Your task to perform on an android device: open app "Google Calendar" Image 0: 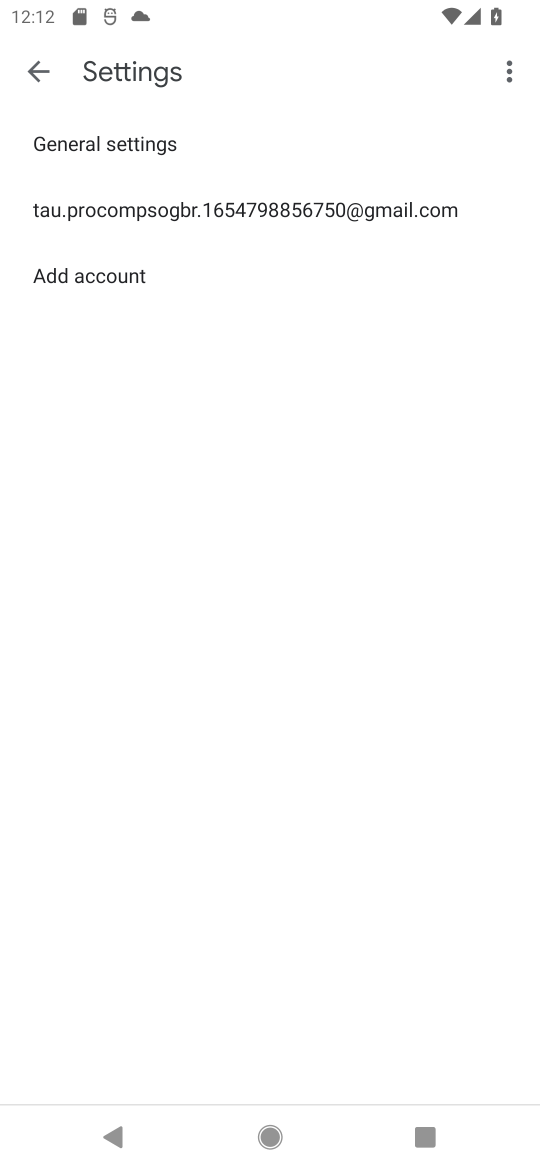
Step 0: press home button
Your task to perform on an android device: open app "Google Calendar" Image 1: 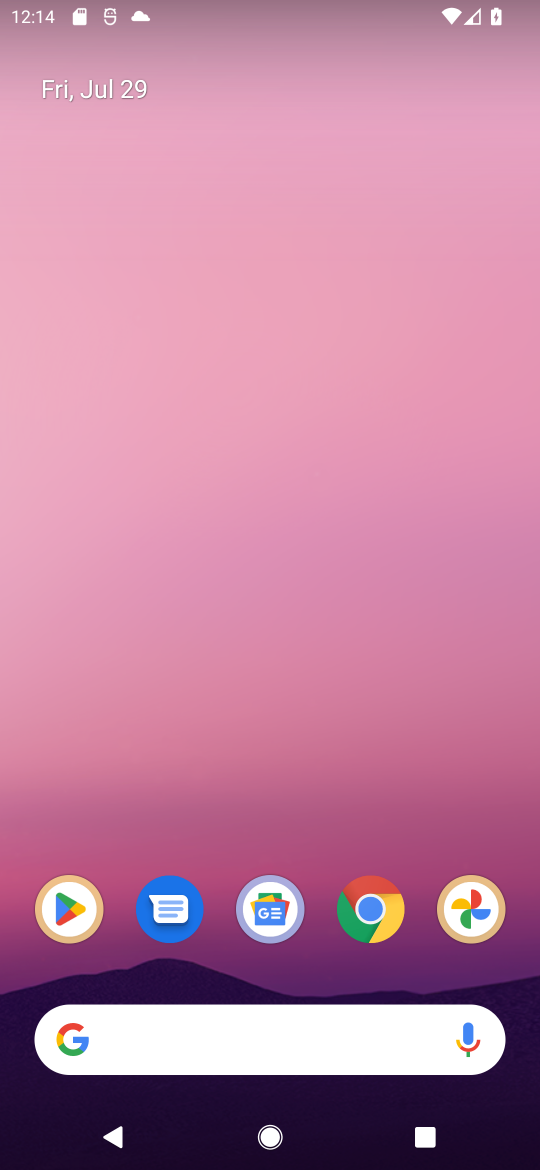
Step 1: click (68, 909)
Your task to perform on an android device: open app "Google Calendar" Image 2: 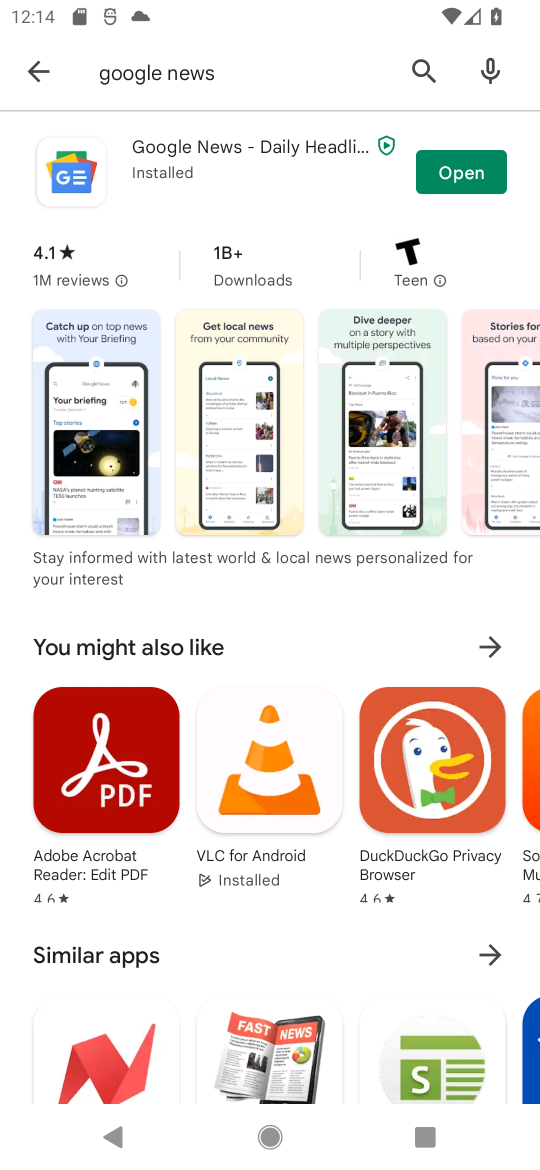
Step 2: click (423, 74)
Your task to perform on an android device: open app "Google Calendar" Image 3: 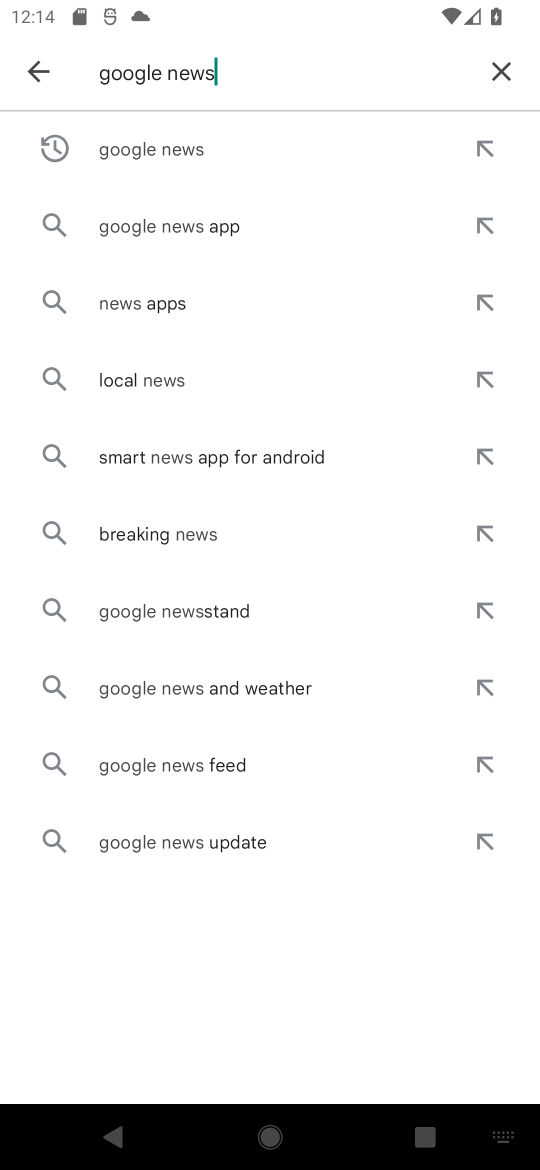
Step 3: click (497, 66)
Your task to perform on an android device: open app "Google Calendar" Image 4: 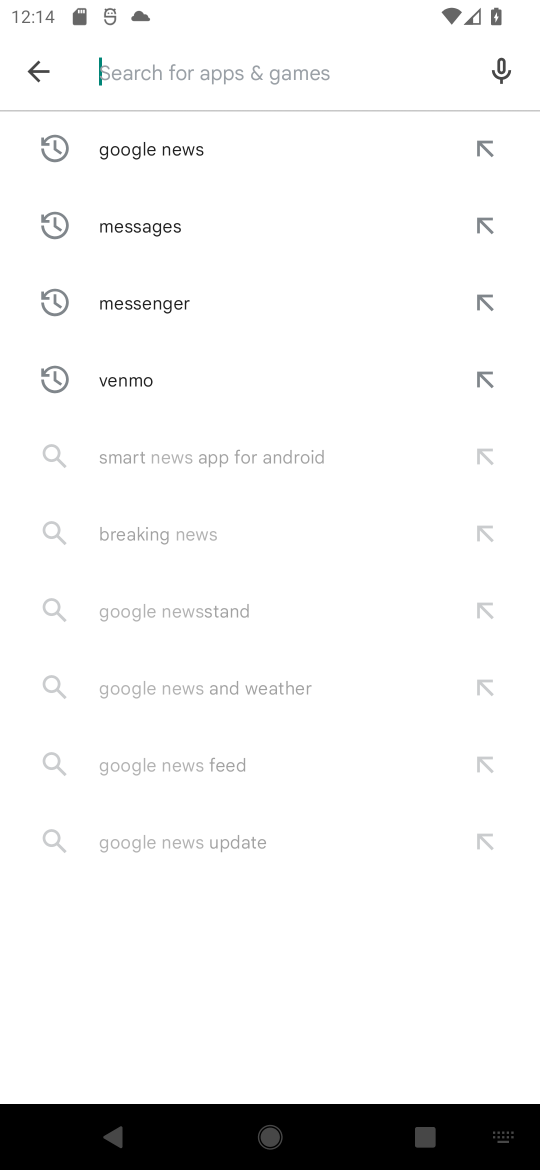
Step 4: click (497, 66)
Your task to perform on an android device: open app "Google Calendar" Image 5: 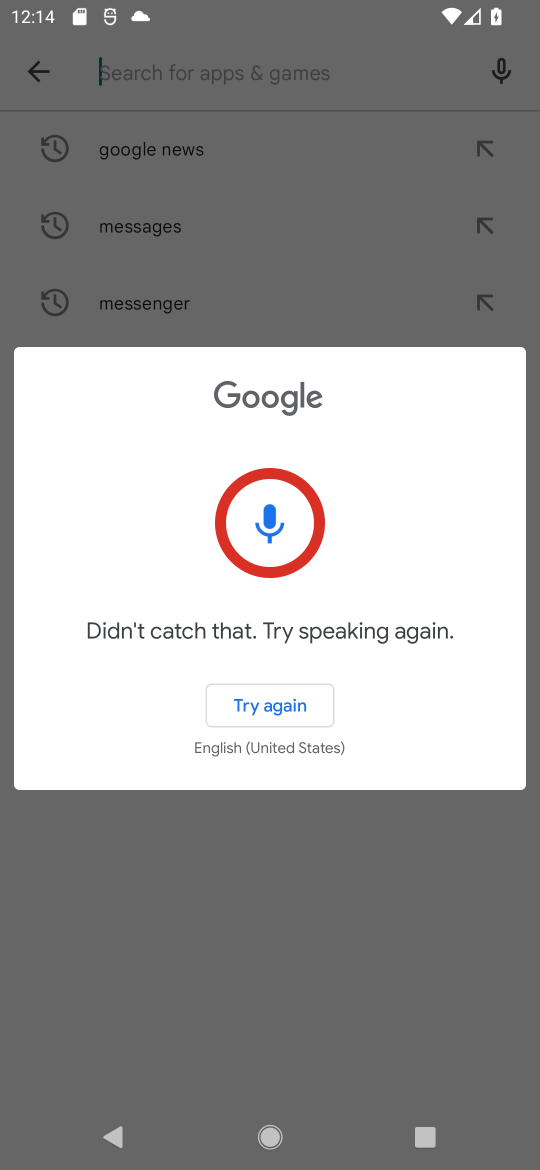
Step 5: click (296, 45)
Your task to perform on an android device: open app "Google Calendar" Image 6: 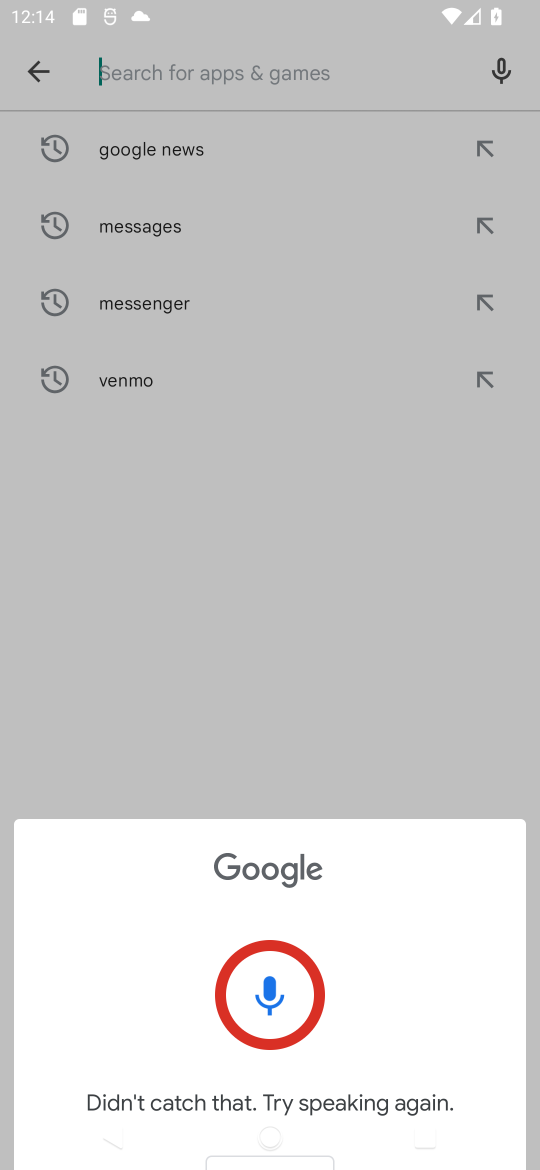
Step 6: click (296, 45)
Your task to perform on an android device: open app "Google Calendar" Image 7: 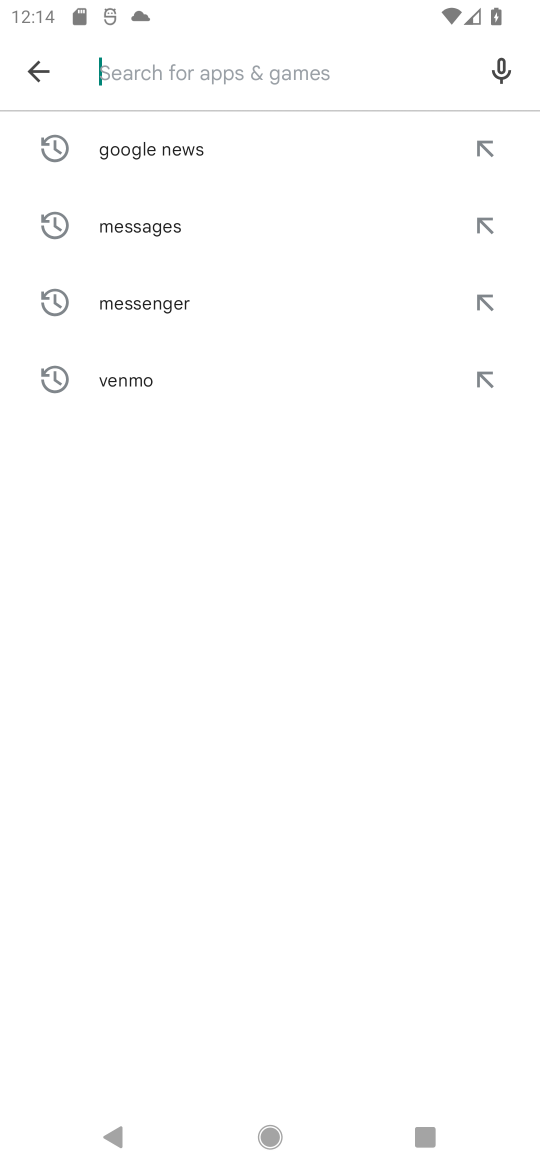
Step 7: click (296, 45)
Your task to perform on an android device: open app "Google Calendar" Image 8: 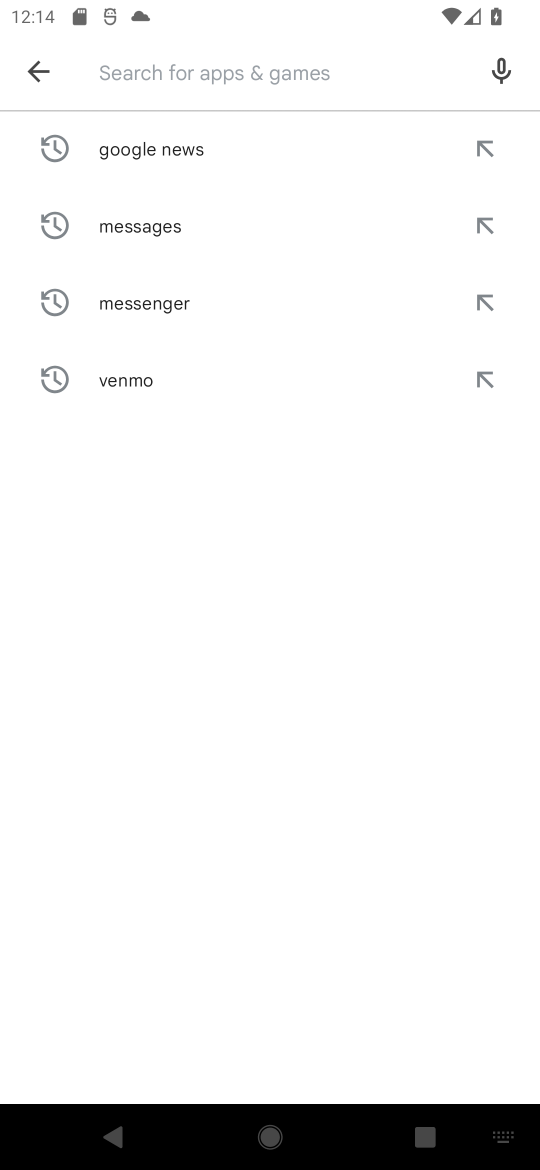
Step 8: click (296, 45)
Your task to perform on an android device: open app "Google Calendar" Image 9: 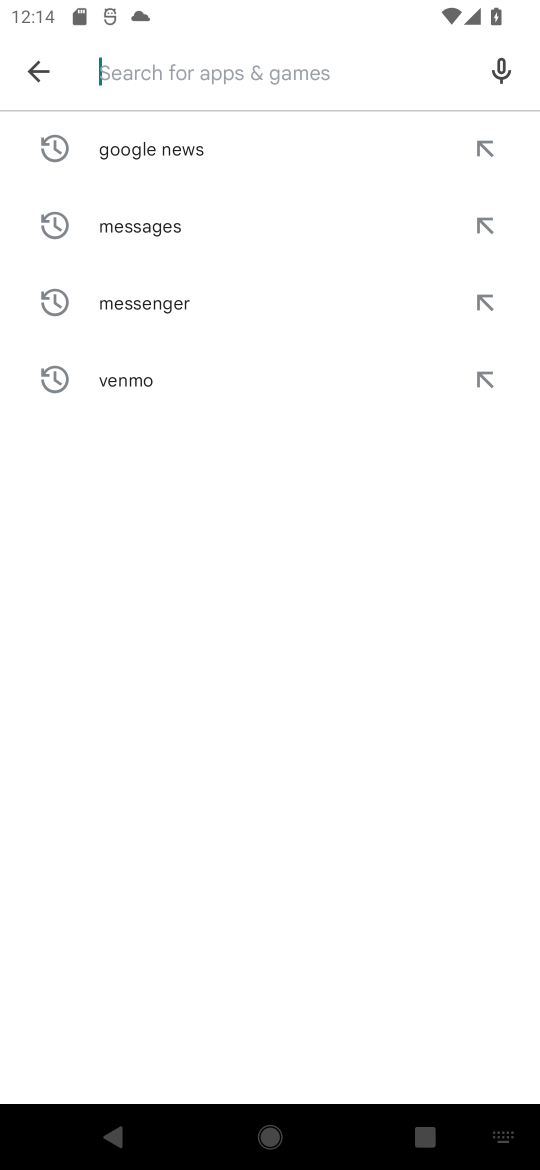
Step 9: type "Google Calendar""
Your task to perform on an android device: open app "Google Calendar" Image 10: 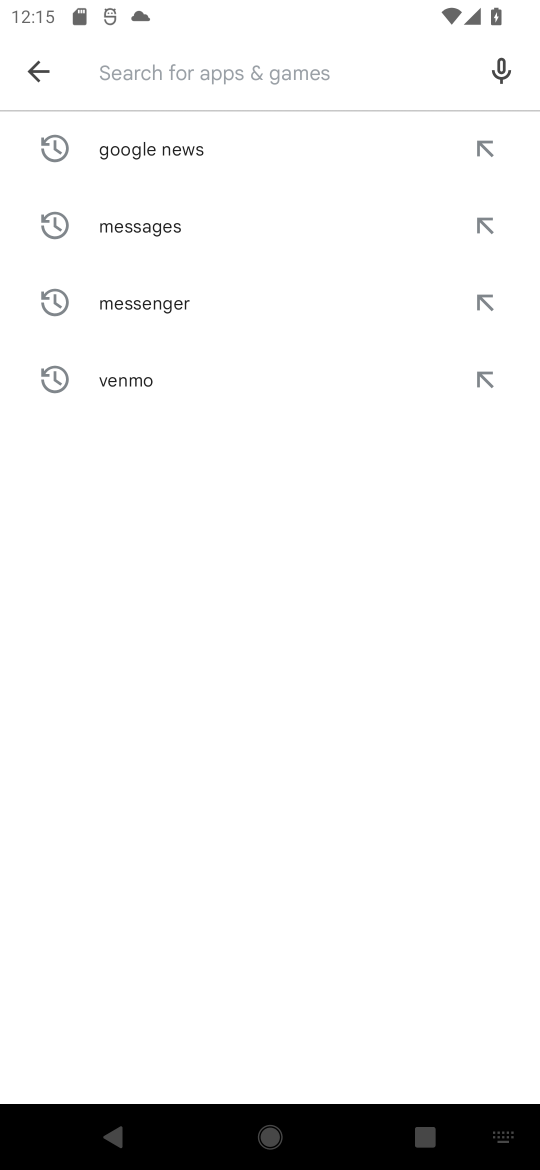
Step 10: type ""
Your task to perform on an android device: open app "Google Calendar" Image 11: 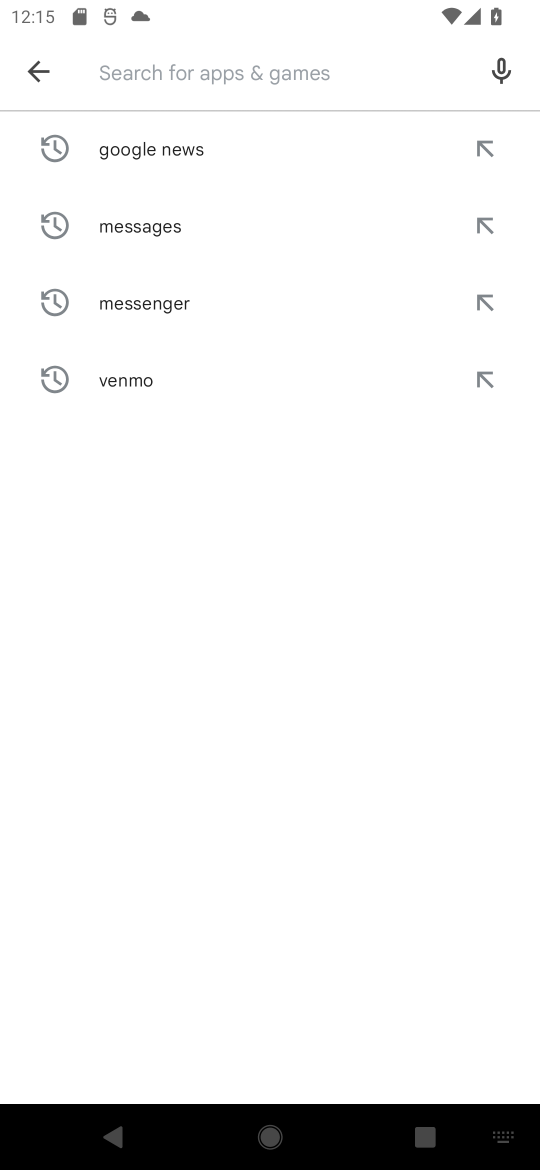
Step 11: type ""
Your task to perform on an android device: open app "Google Calendar" Image 12: 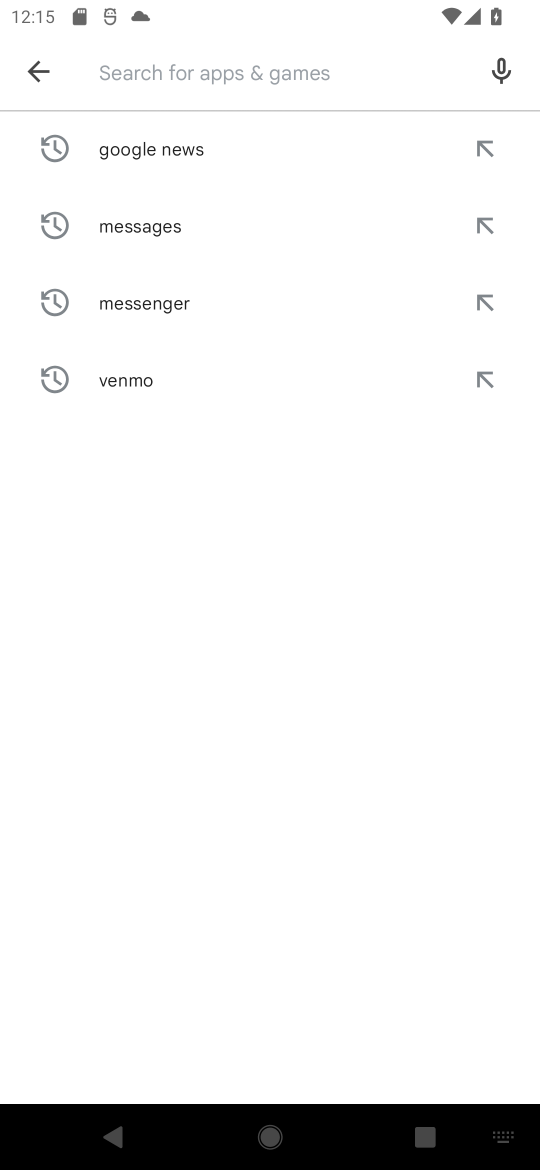
Step 12: type ""
Your task to perform on an android device: open app "Google Calendar" Image 13: 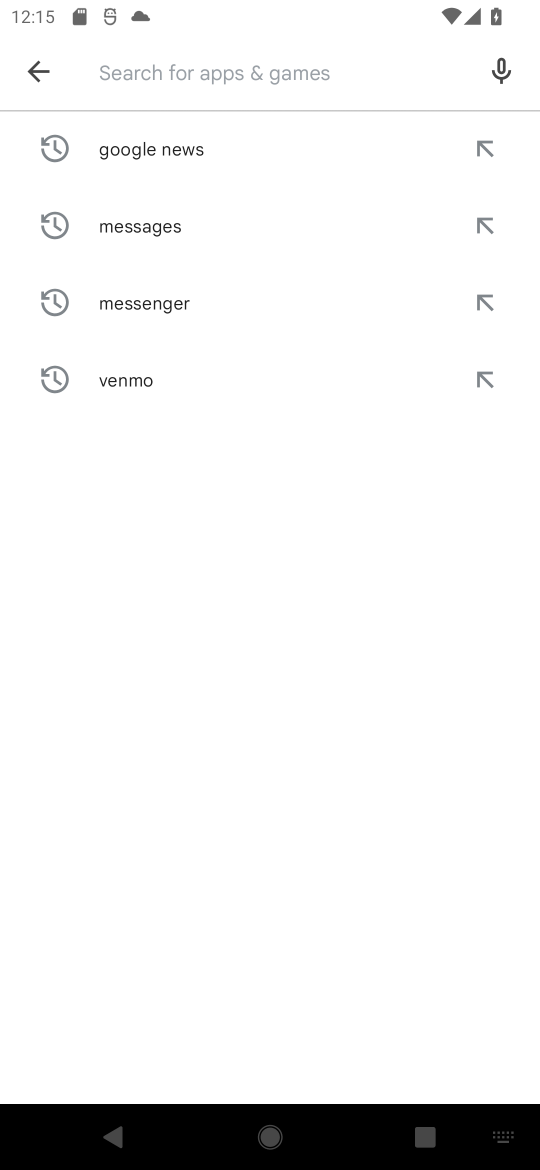
Step 13: type ""
Your task to perform on an android device: open app "Google Calendar" Image 14: 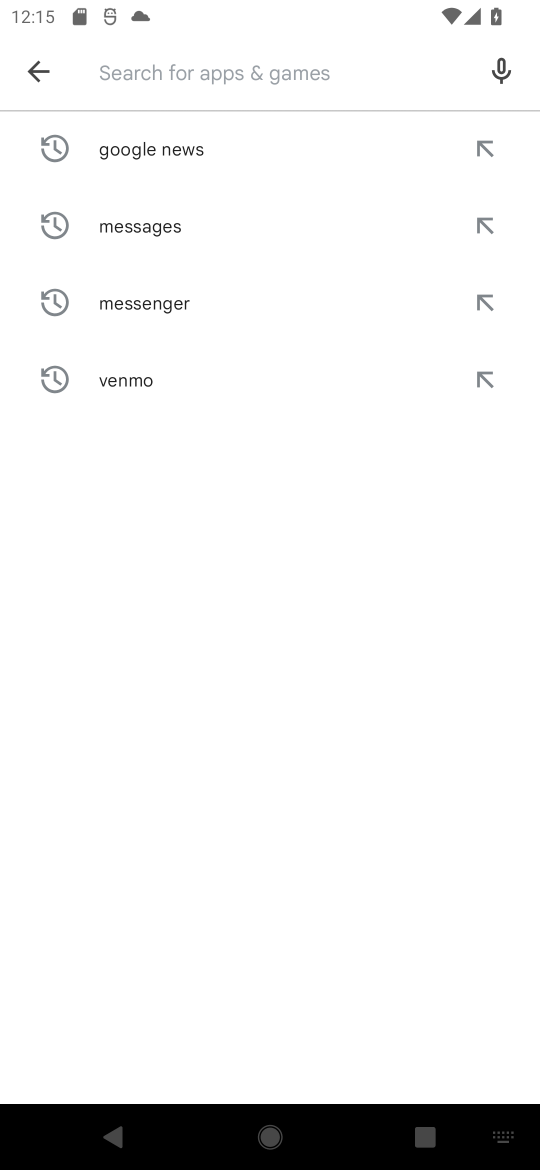
Step 14: press home button
Your task to perform on an android device: open app "Google Calendar" Image 15: 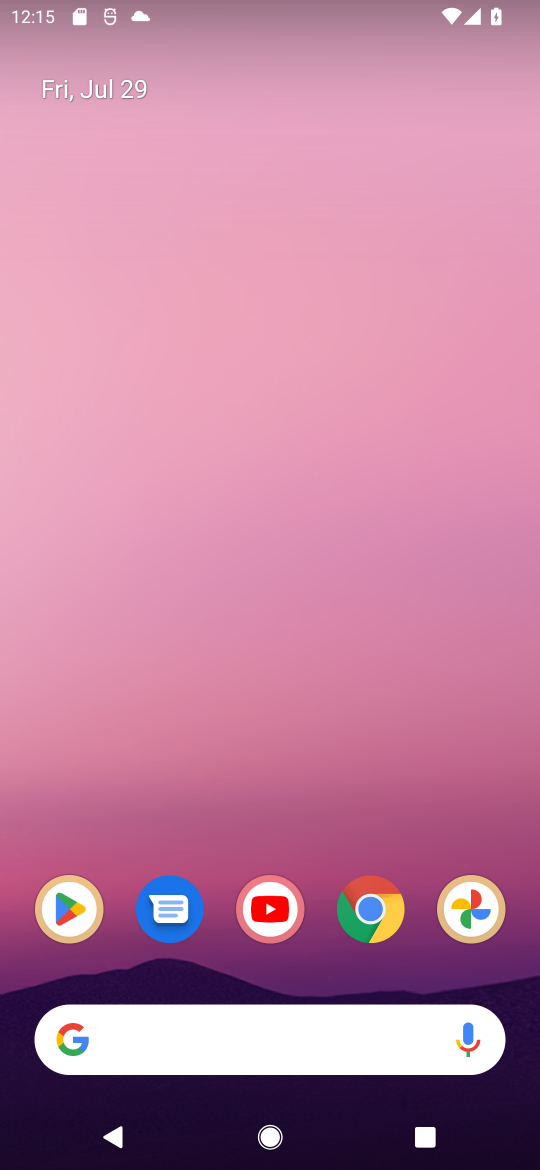
Step 15: click (57, 901)
Your task to perform on an android device: open app "Google Calendar" Image 16: 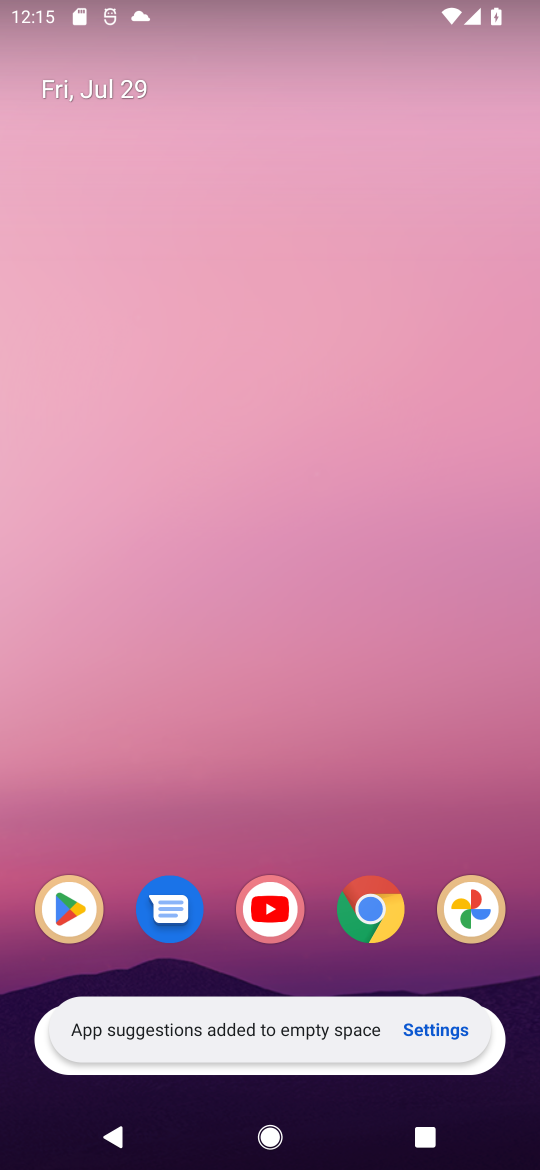
Step 16: click (57, 901)
Your task to perform on an android device: open app "Google Calendar" Image 17: 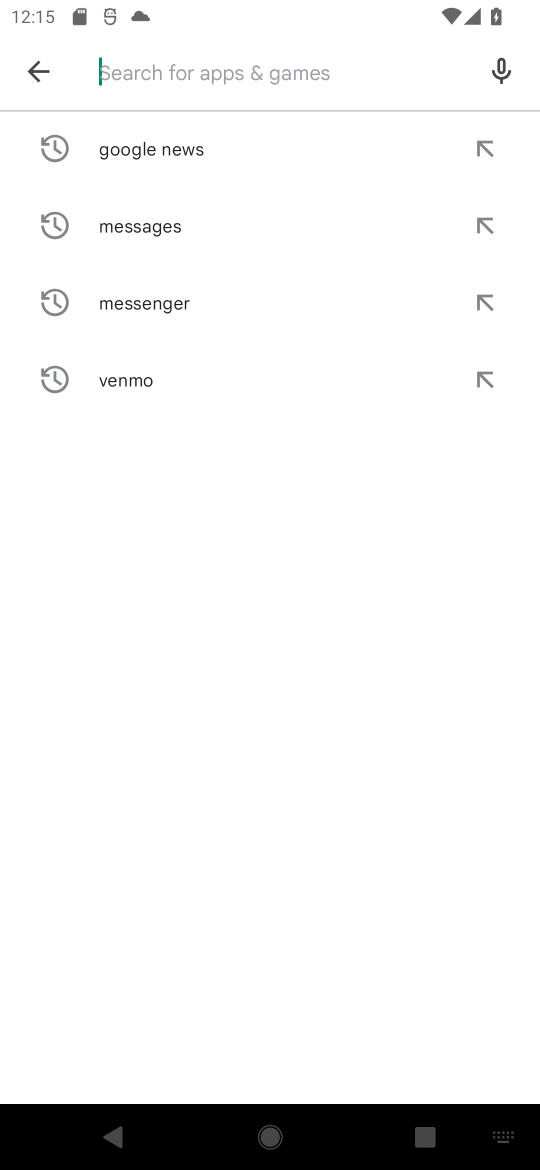
Step 17: type "Google Calendar"
Your task to perform on an android device: open app "Google Calendar" Image 18: 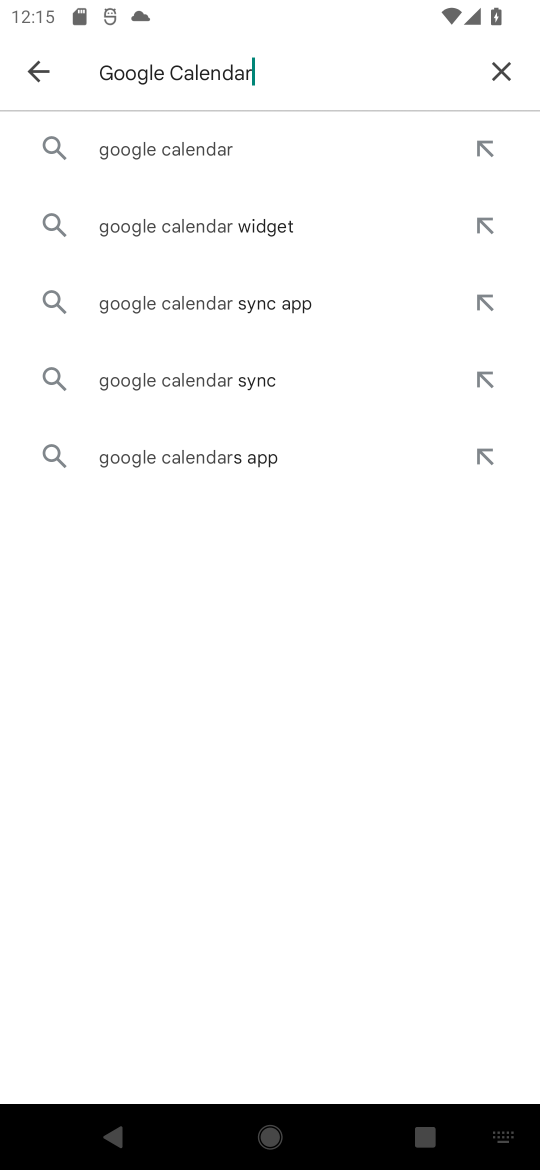
Step 18: type ""
Your task to perform on an android device: open app "Google Calendar" Image 19: 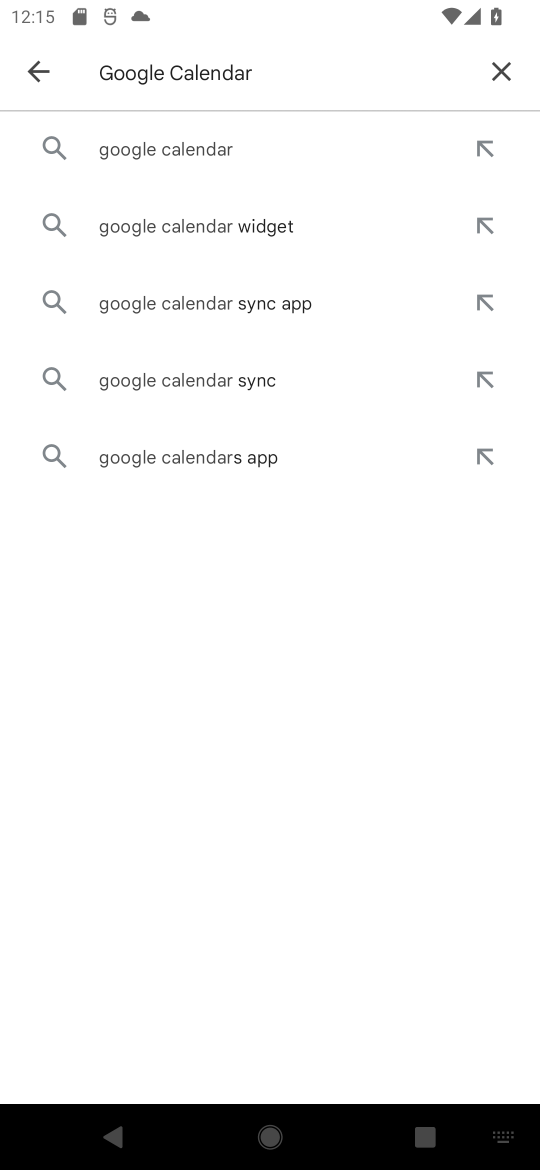
Step 19: click (210, 148)
Your task to perform on an android device: open app "Google Calendar" Image 20: 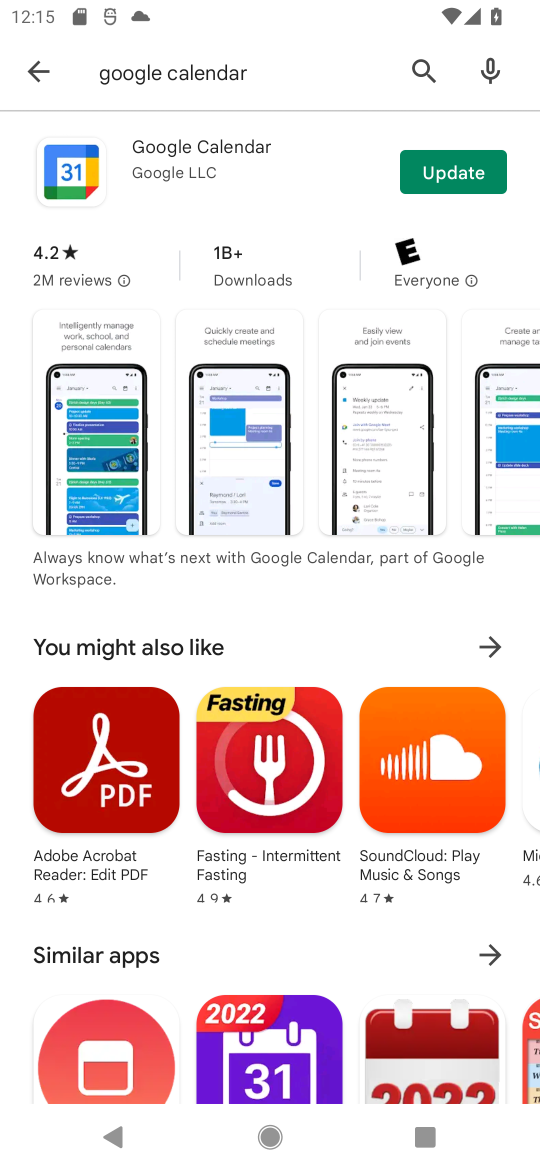
Step 20: click (183, 146)
Your task to perform on an android device: open app "Google Calendar" Image 21: 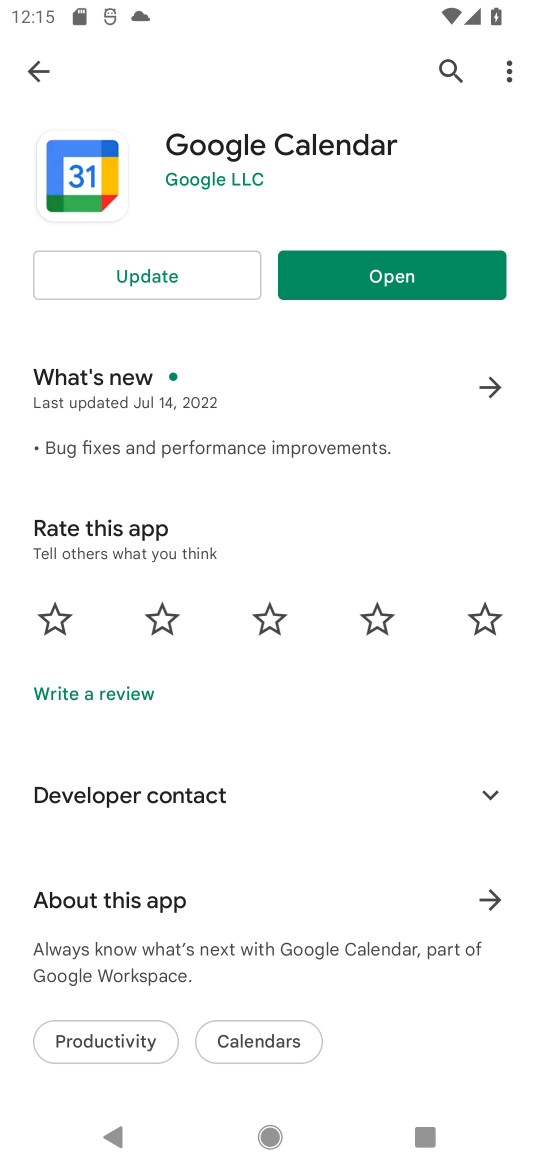
Step 21: click (419, 271)
Your task to perform on an android device: open app "Google Calendar" Image 22: 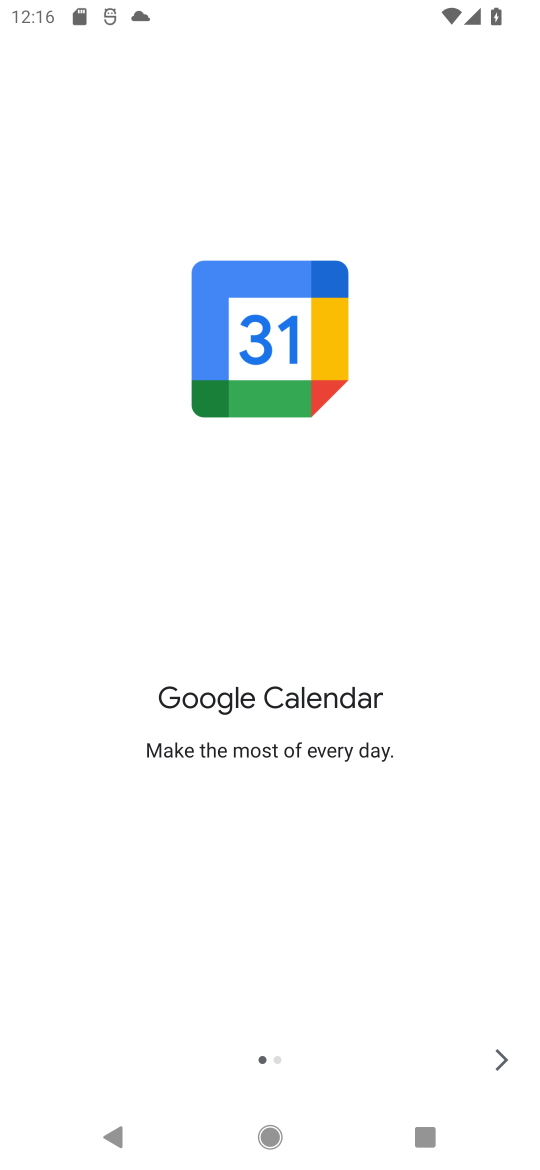
Step 22: click (493, 1067)
Your task to perform on an android device: open app "Google Calendar" Image 23: 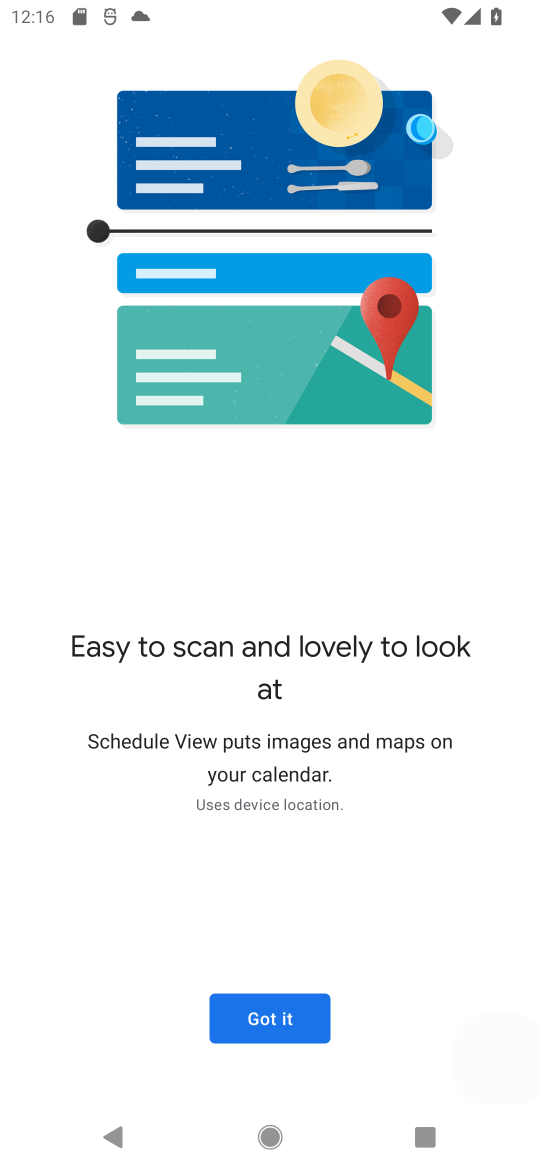
Step 23: click (493, 1067)
Your task to perform on an android device: open app "Google Calendar" Image 24: 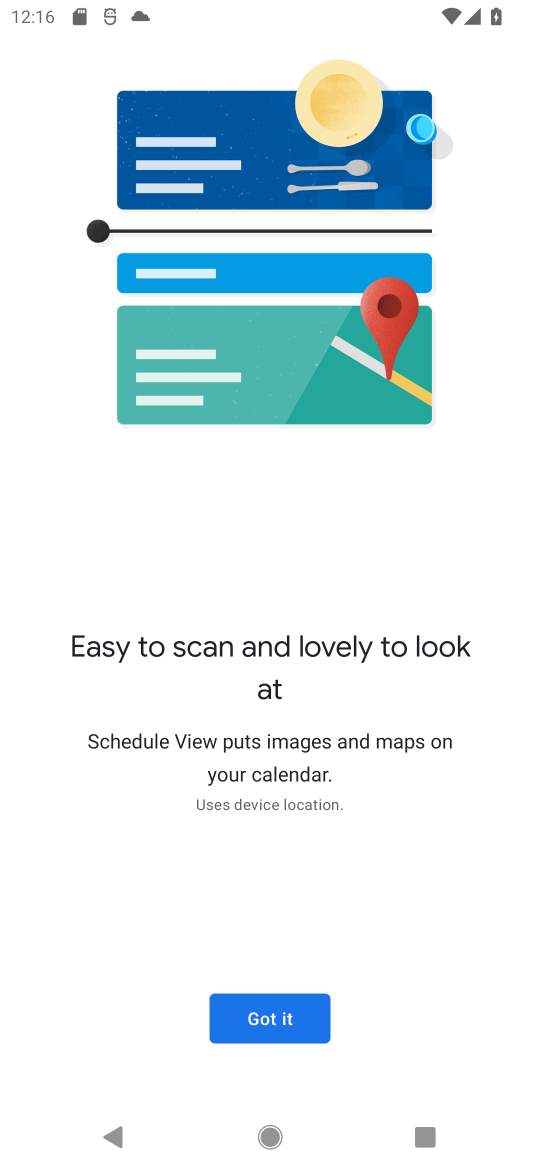
Step 24: click (299, 1019)
Your task to perform on an android device: open app "Google Calendar" Image 25: 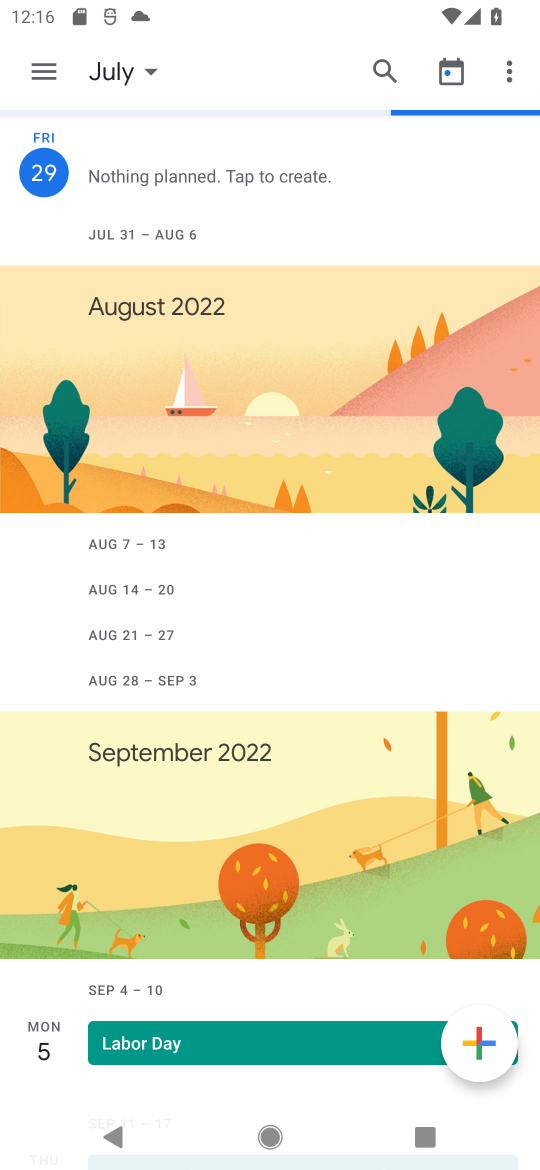
Step 25: task complete